Your task to perform on an android device: Open calendar and show me the first week of next month Image 0: 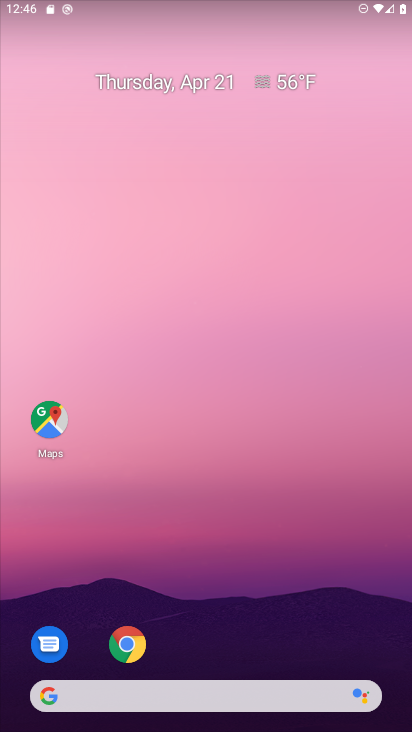
Step 0: drag from (194, 649) to (213, 100)
Your task to perform on an android device: Open calendar and show me the first week of next month Image 1: 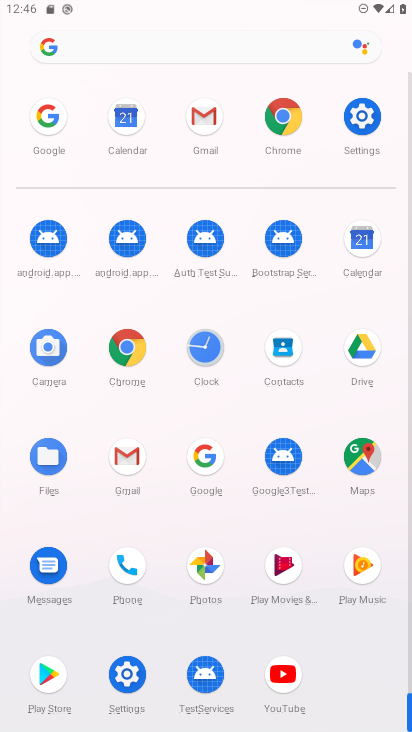
Step 1: click (365, 243)
Your task to perform on an android device: Open calendar and show me the first week of next month Image 2: 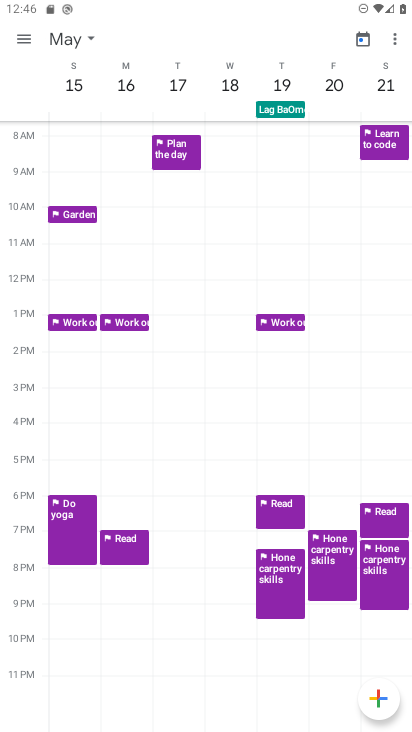
Step 2: click (85, 39)
Your task to perform on an android device: Open calendar and show me the first week of next month Image 3: 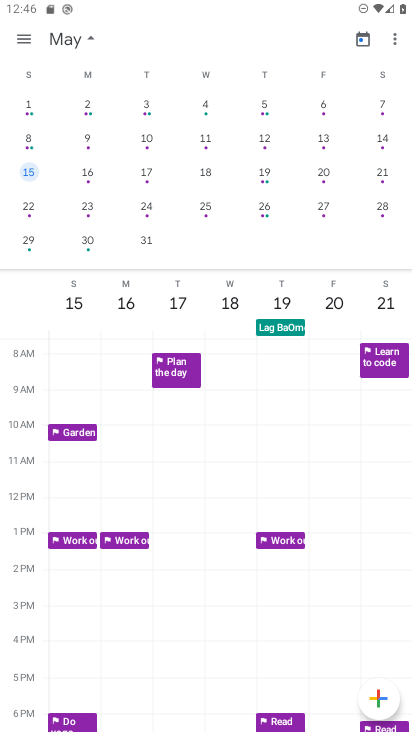
Step 3: click (398, 134)
Your task to perform on an android device: Open calendar and show me the first week of next month Image 4: 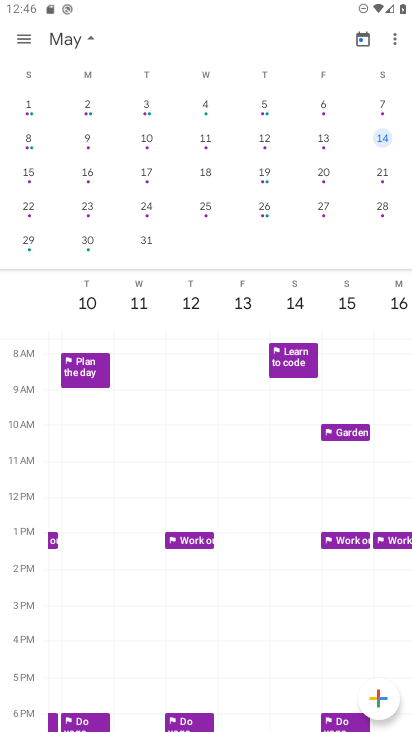
Step 4: click (87, 103)
Your task to perform on an android device: Open calendar and show me the first week of next month Image 5: 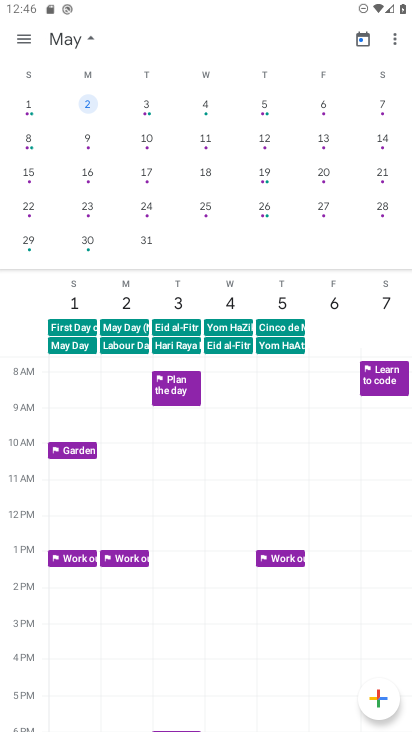
Step 5: click (26, 41)
Your task to perform on an android device: Open calendar and show me the first week of next month Image 6: 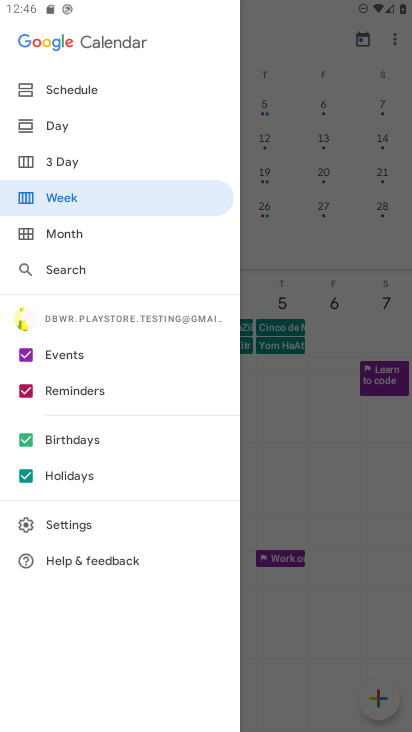
Step 6: click (107, 192)
Your task to perform on an android device: Open calendar and show me the first week of next month Image 7: 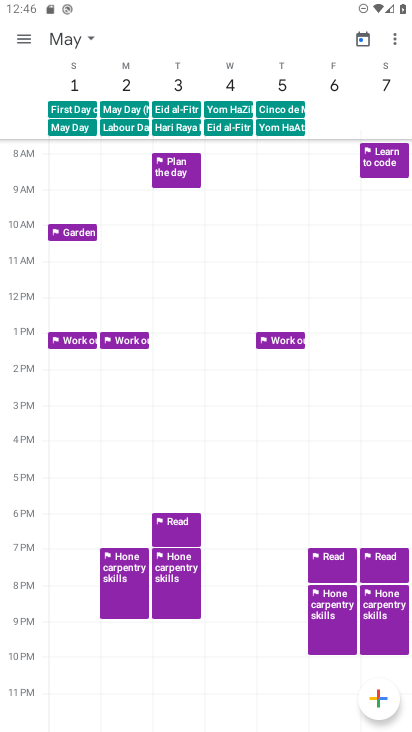
Step 7: task complete